Your task to perform on an android device: Open network settings Image 0: 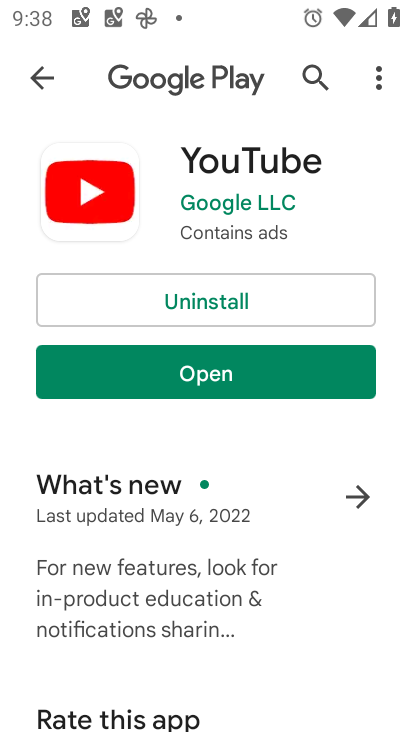
Step 0: press home button
Your task to perform on an android device: Open network settings Image 1: 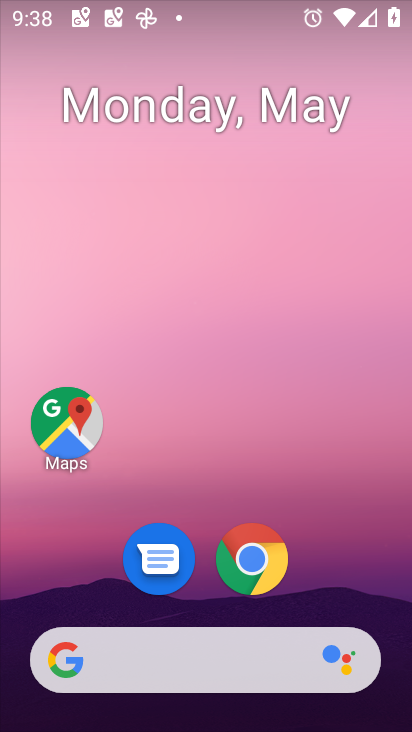
Step 1: drag from (394, 644) to (295, 144)
Your task to perform on an android device: Open network settings Image 2: 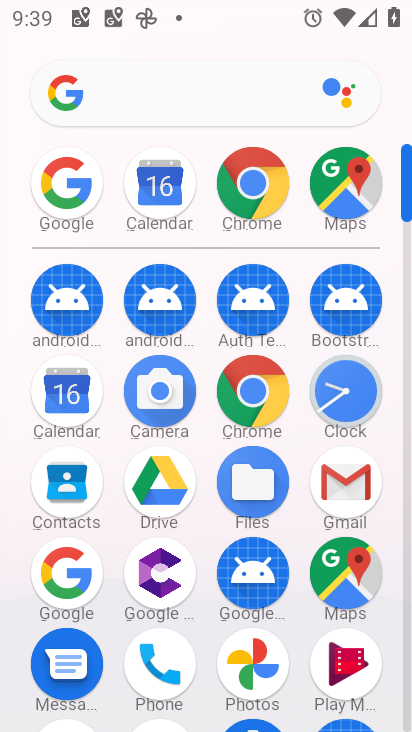
Step 2: drag from (203, 672) to (220, 160)
Your task to perform on an android device: Open network settings Image 3: 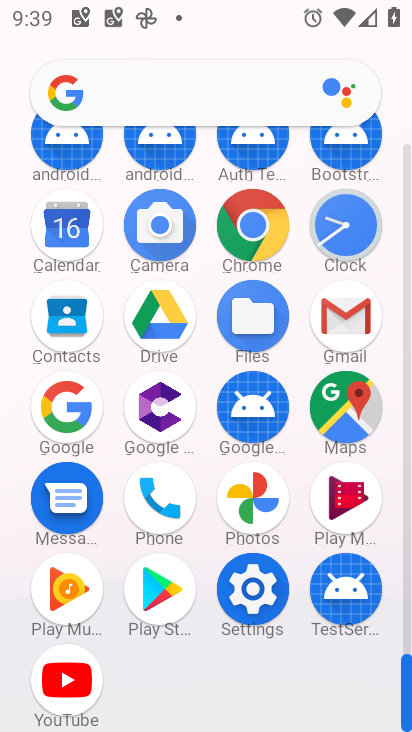
Step 3: click (251, 594)
Your task to perform on an android device: Open network settings Image 4: 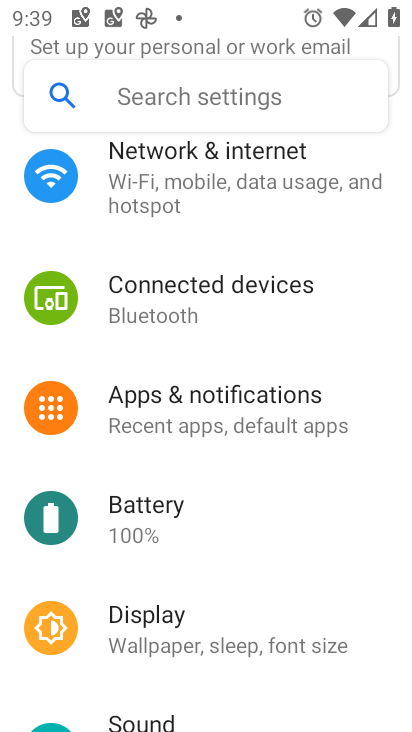
Step 4: drag from (180, 233) to (205, 535)
Your task to perform on an android device: Open network settings Image 5: 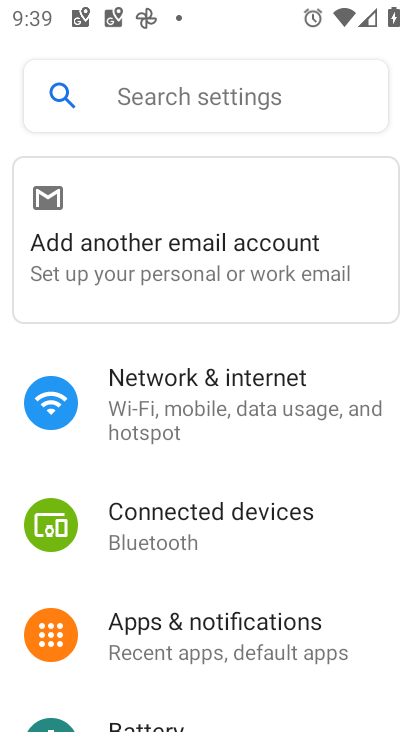
Step 5: click (157, 428)
Your task to perform on an android device: Open network settings Image 6: 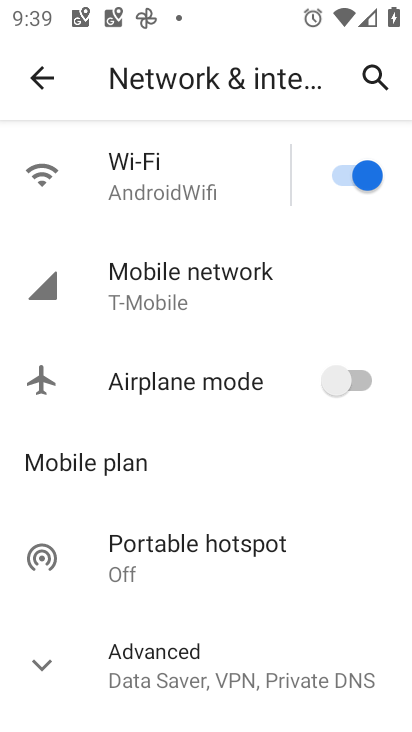
Step 6: click (151, 193)
Your task to perform on an android device: Open network settings Image 7: 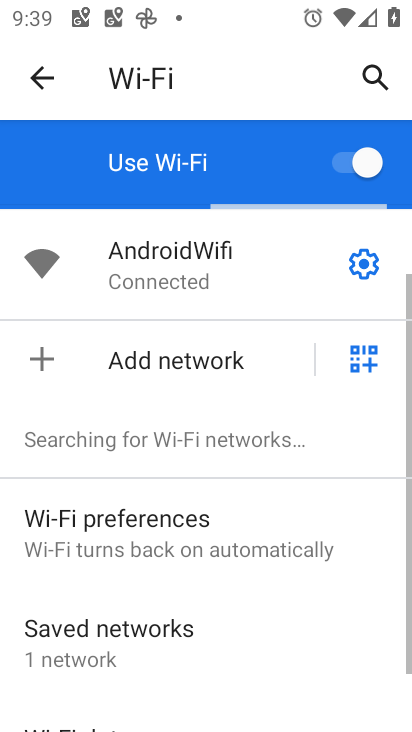
Step 7: task complete